Your task to perform on an android device: open the mobile data screen to see how much data has been used Image 0: 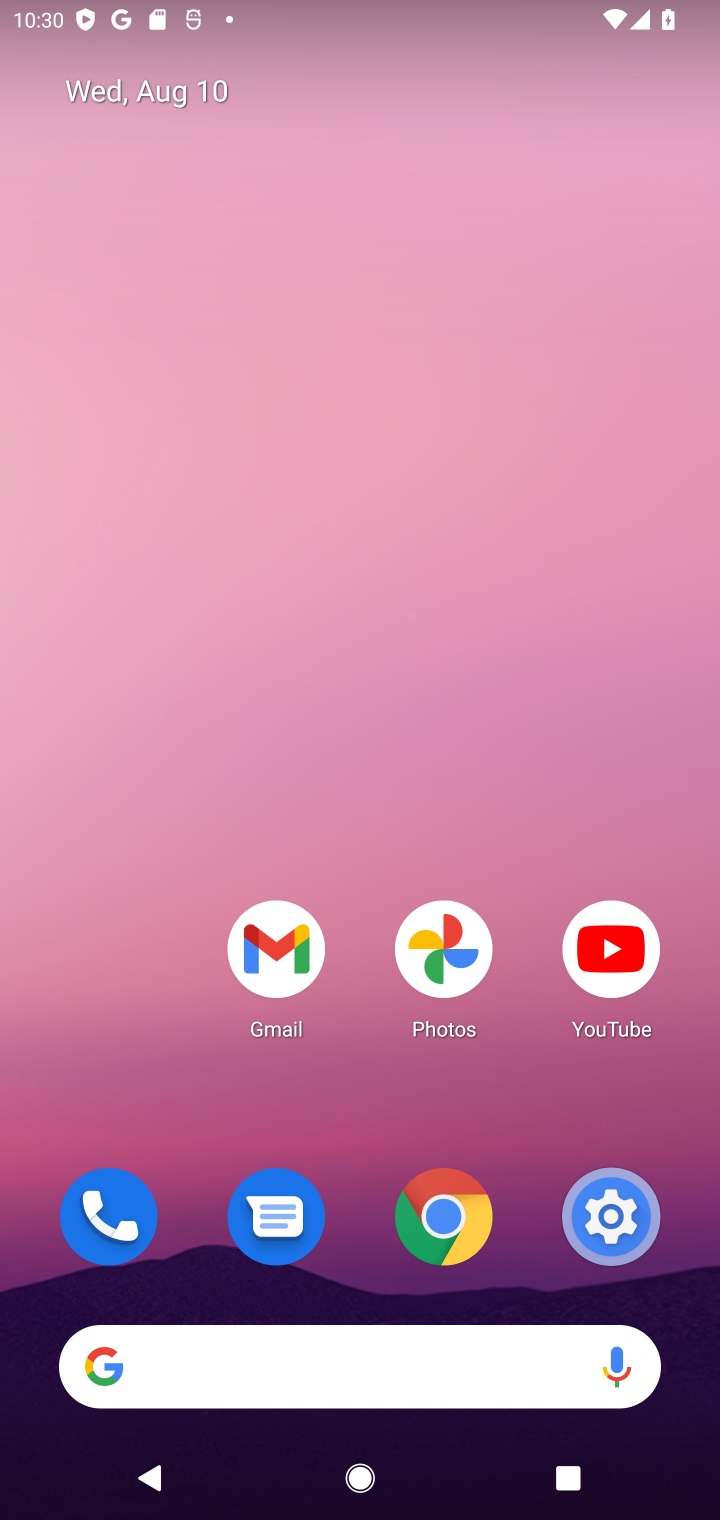
Step 0: drag from (76, 1183) to (580, 305)
Your task to perform on an android device: open the mobile data screen to see how much data has been used Image 1: 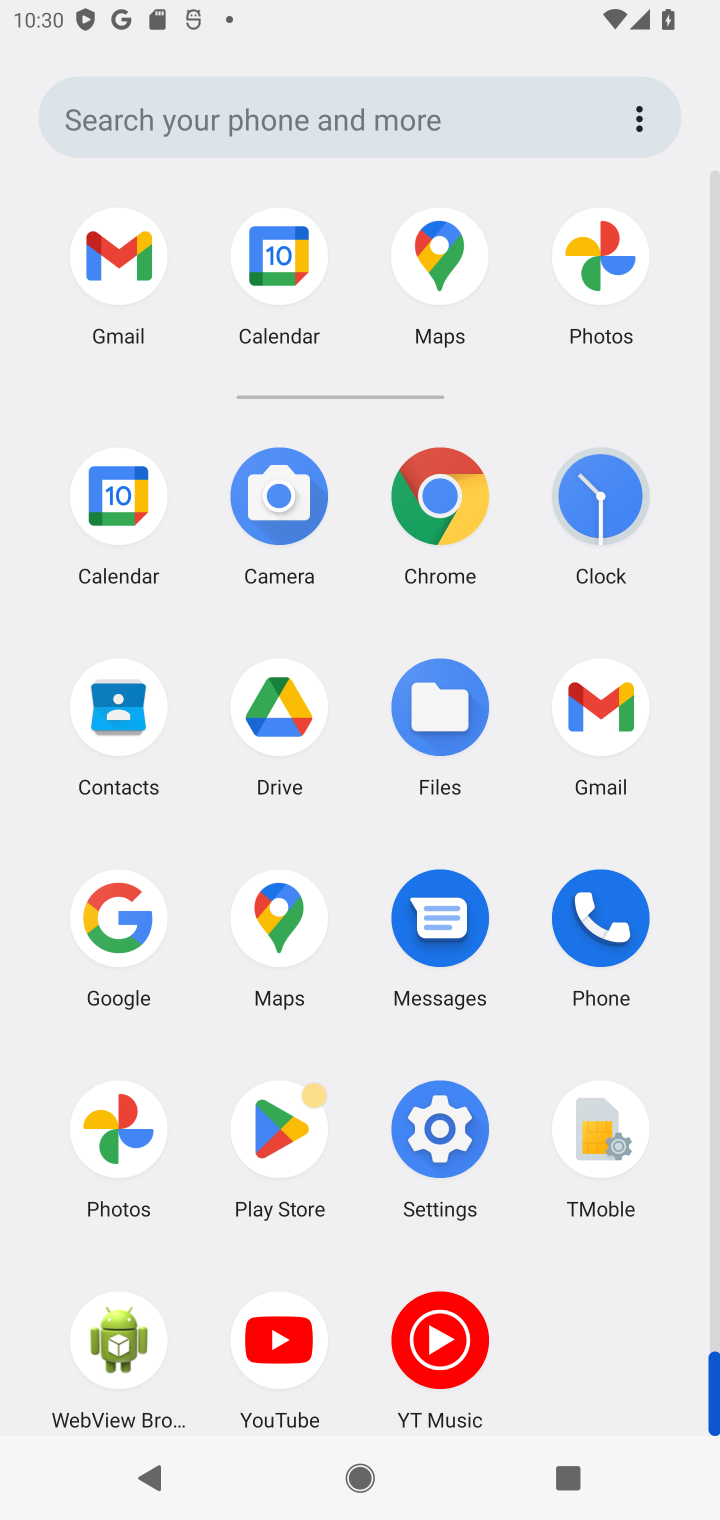
Step 1: click (426, 1116)
Your task to perform on an android device: open the mobile data screen to see how much data has been used Image 2: 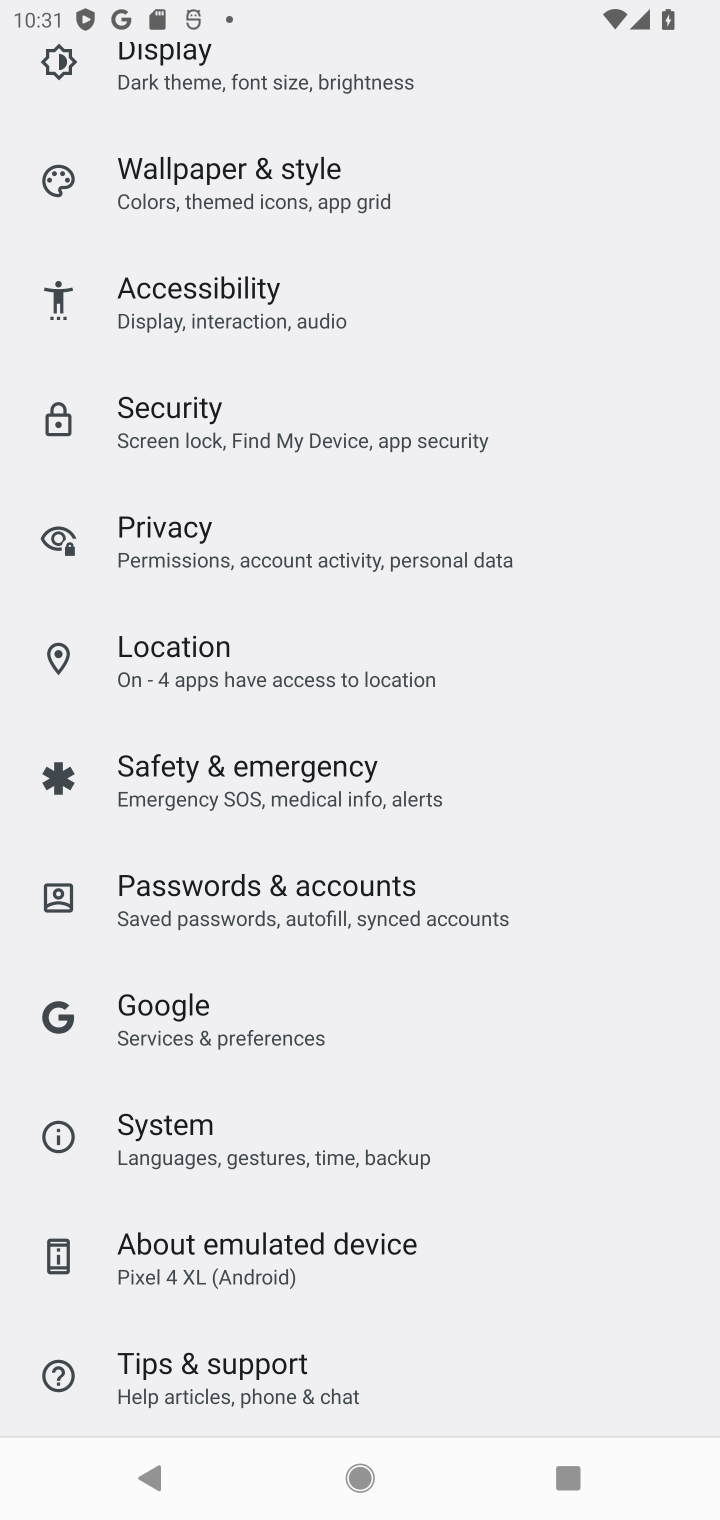
Step 2: task complete